Your task to perform on an android device: Search for vegetarian restaurants on Maps Image 0: 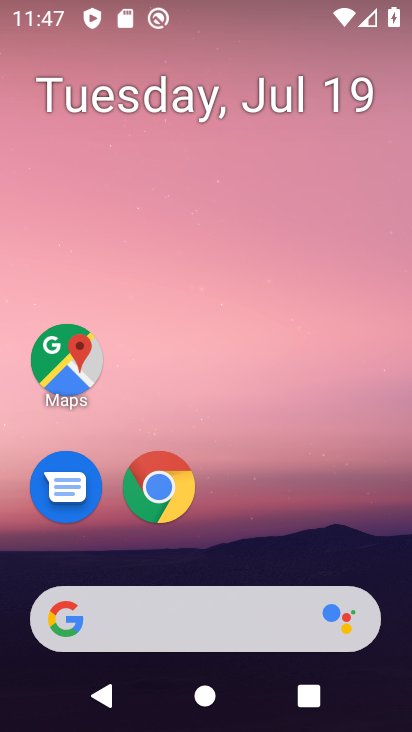
Step 0: click (62, 351)
Your task to perform on an android device: Search for vegetarian restaurants on Maps Image 1: 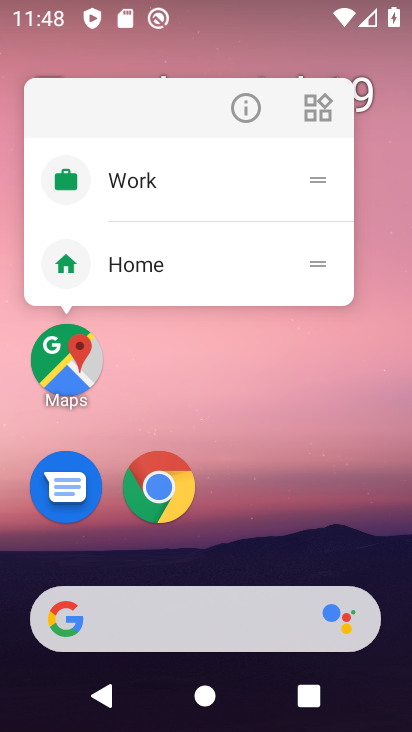
Step 1: click (71, 376)
Your task to perform on an android device: Search for vegetarian restaurants on Maps Image 2: 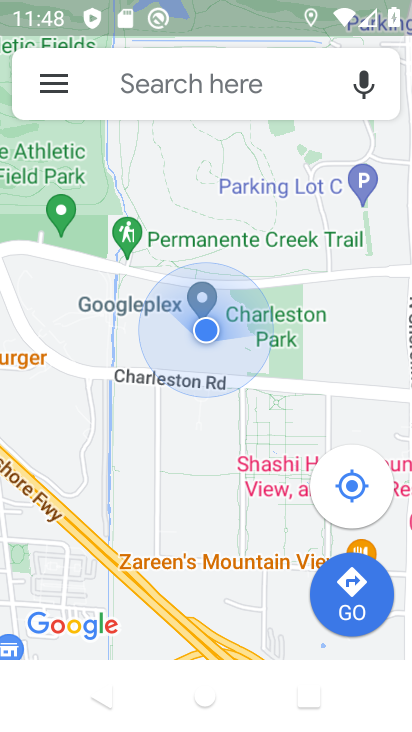
Step 2: click (180, 86)
Your task to perform on an android device: Search for vegetarian restaurants on Maps Image 3: 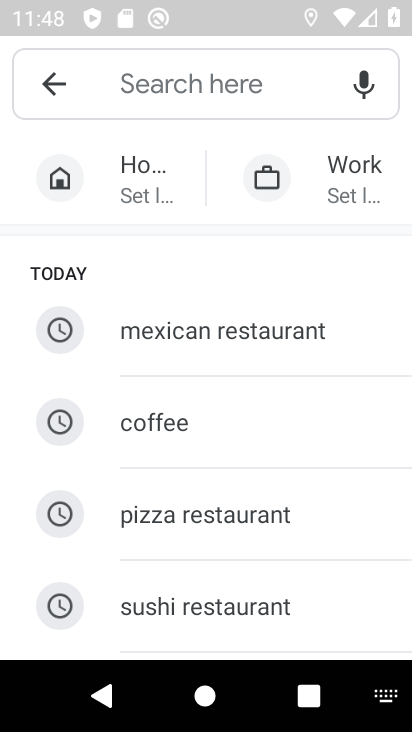
Step 3: drag from (182, 598) to (247, 150)
Your task to perform on an android device: Search for vegetarian restaurants on Maps Image 4: 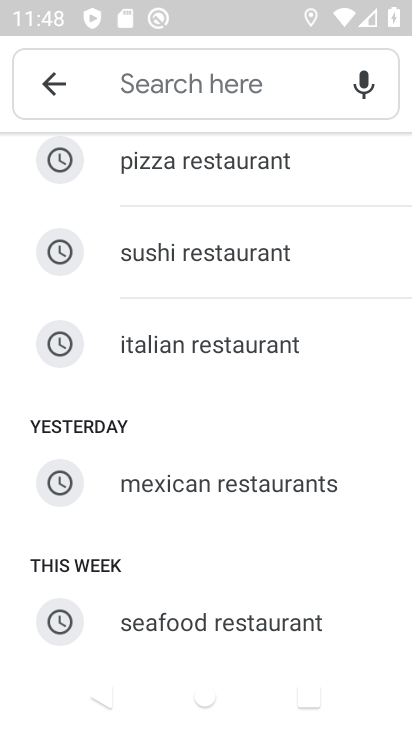
Step 4: click (257, 45)
Your task to perform on an android device: Search for vegetarian restaurants on Maps Image 5: 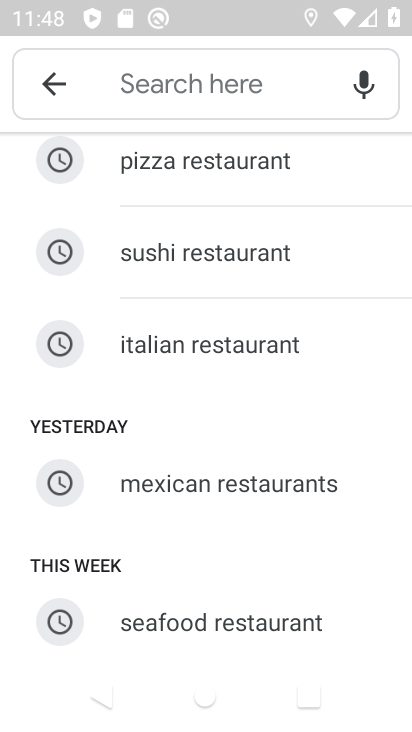
Step 5: drag from (240, 561) to (217, 706)
Your task to perform on an android device: Search for vegetarian restaurants on Maps Image 6: 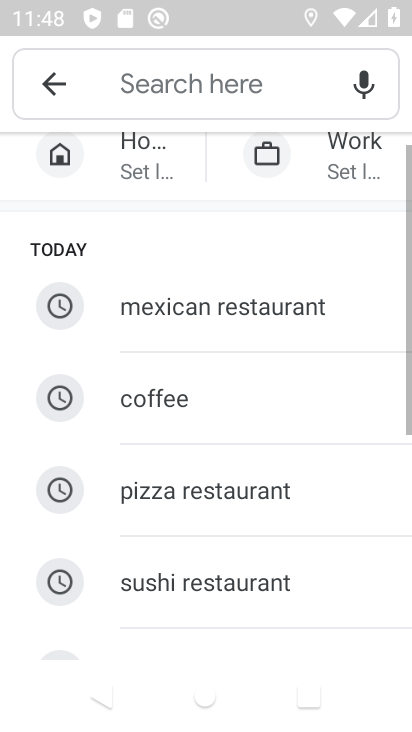
Step 6: click (225, 83)
Your task to perform on an android device: Search for vegetarian restaurants on Maps Image 7: 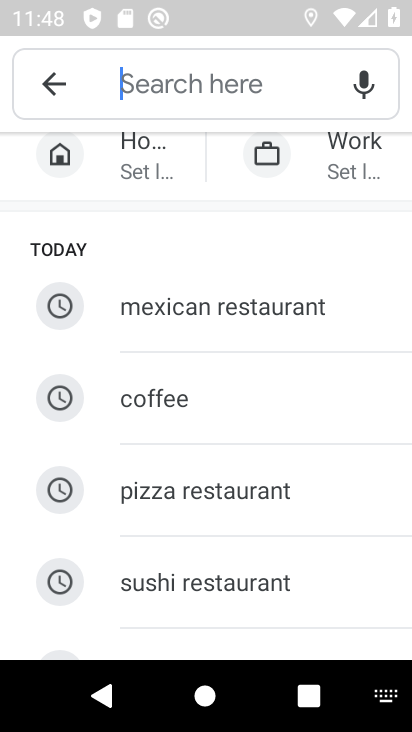
Step 7: type "vegetarian"
Your task to perform on an android device: Search for vegetarian restaurants on Maps Image 8: 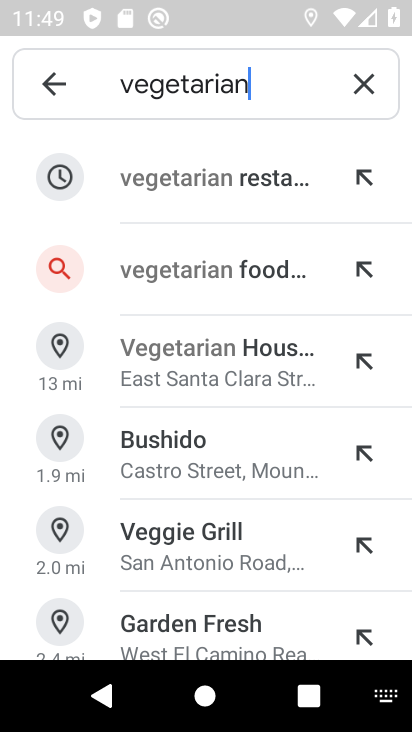
Step 8: click (219, 169)
Your task to perform on an android device: Search for vegetarian restaurants on Maps Image 9: 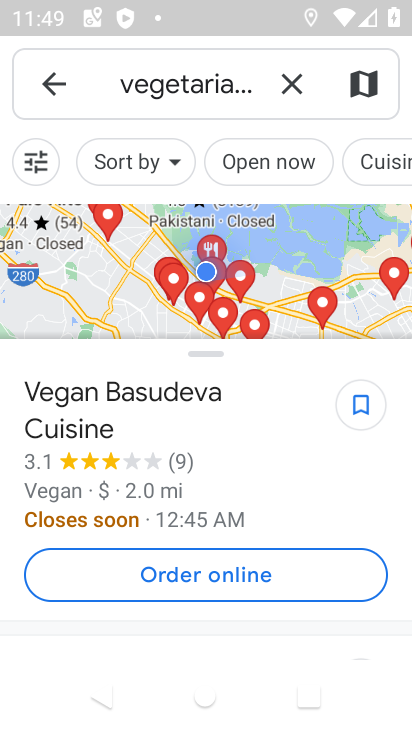
Step 9: task complete